Your task to perform on an android device: open wifi settings Image 0: 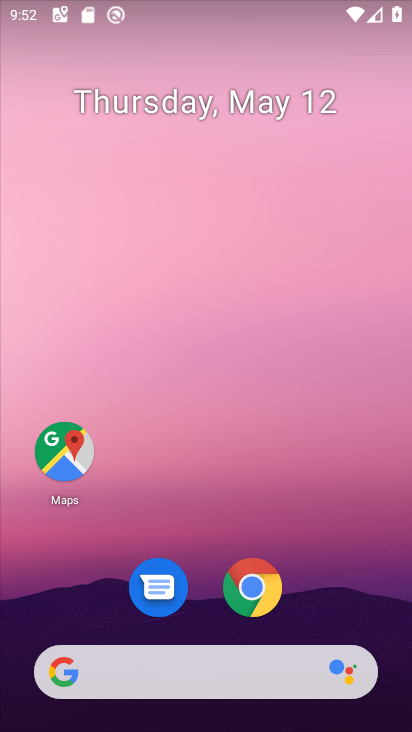
Step 0: drag from (366, 477) to (259, 28)
Your task to perform on an android device: open wifi settings Image 1: 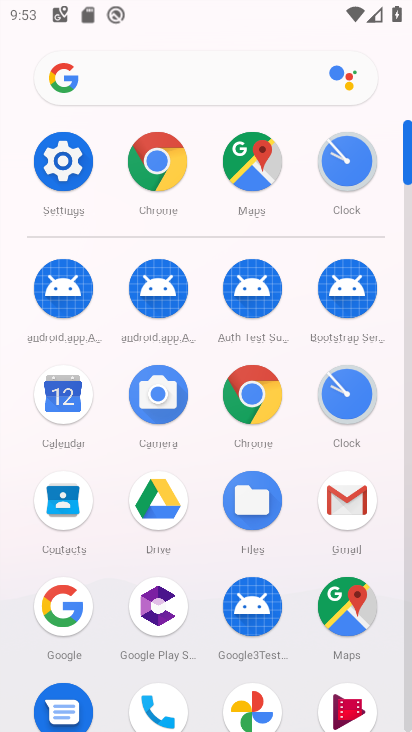
Step 1: click (81, 161)
Your task to perform on an android device: open wifi settings Image 2: 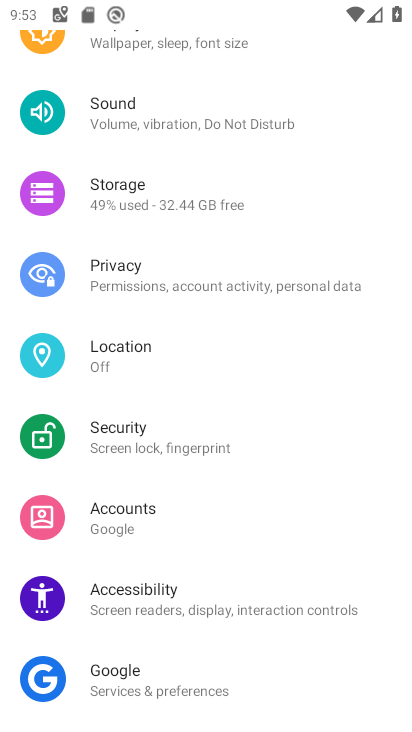
Step 2: drag from (285, 125) to (272, 466)
Your task to perform on an android device: open wifi settings Image 3: 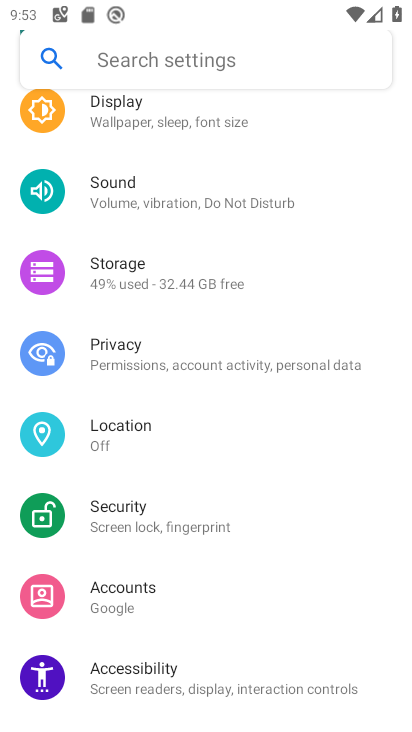
Step 3: drag from (250, 123) to (214, 407)
Your task to perform on an android device: open wifi settings Image 4: 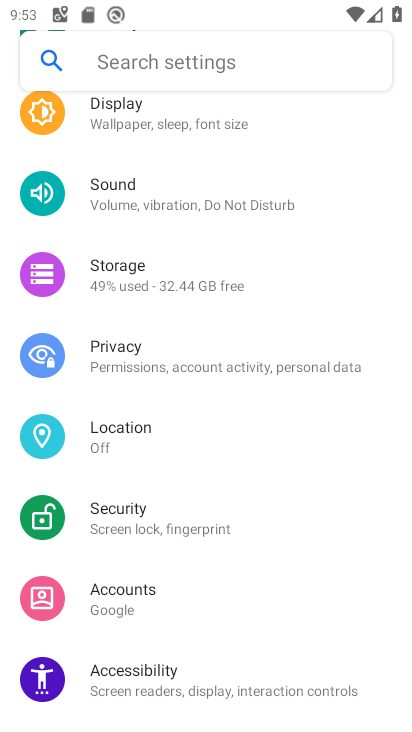
Step 4: drag from (208, 218) to (207, 431)
Your task to perform on an android device: open wifi settings Image 5: 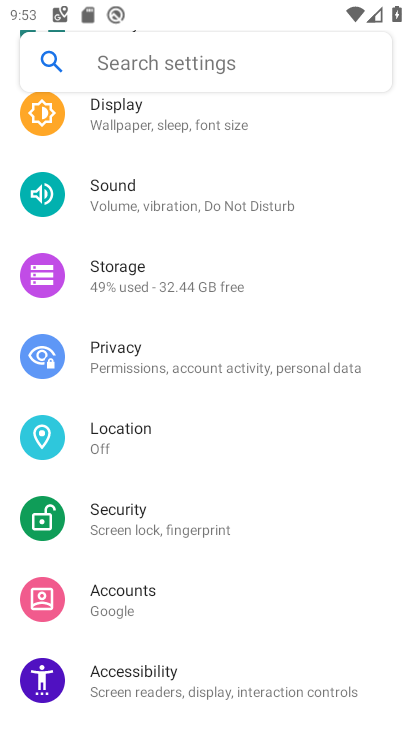
Step 5: drag from (219, 396) to (178, 686)
Your task to perform on an android device: open wifi settings Image 6: 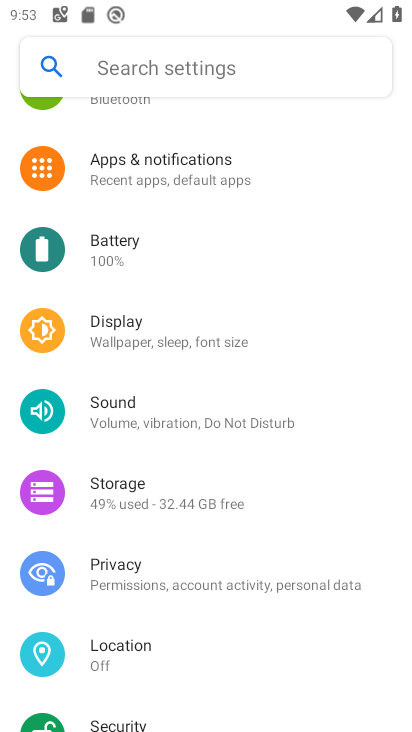
Step 6: drag from (248, 562) to (109, 258)
Your task to perform on an android device: open wifi settings Image 7: 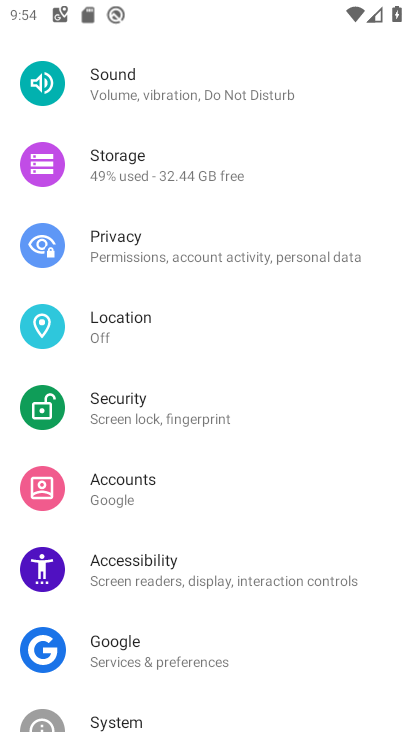
Step 7: drag from (332, 183) to (281, 657)
Your task to perform on an android device: open wifi settings Image 8: 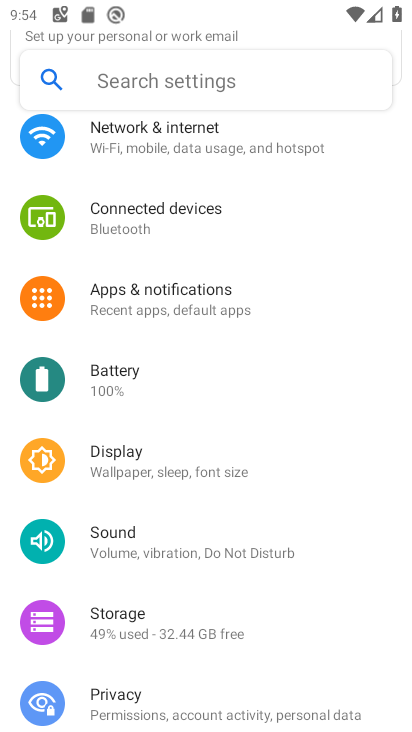
Step 8: drag from (190, 171) to (171, 598)
Your task to perform on an android device: open wifi settings Image 9: 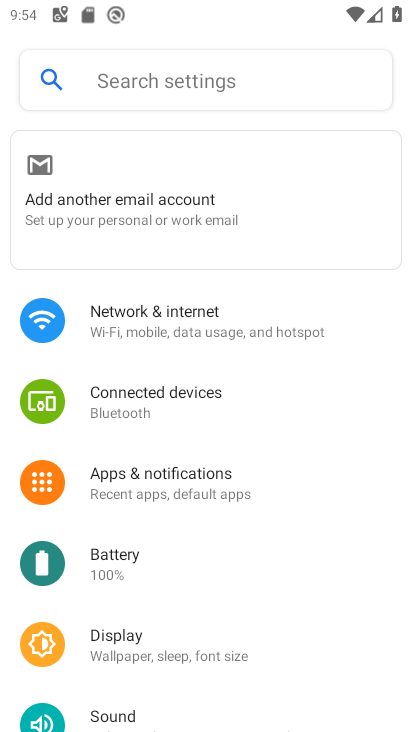
Step 9: click (176, 343)
Your task to perform on an android device: open wifi settings Image 10: 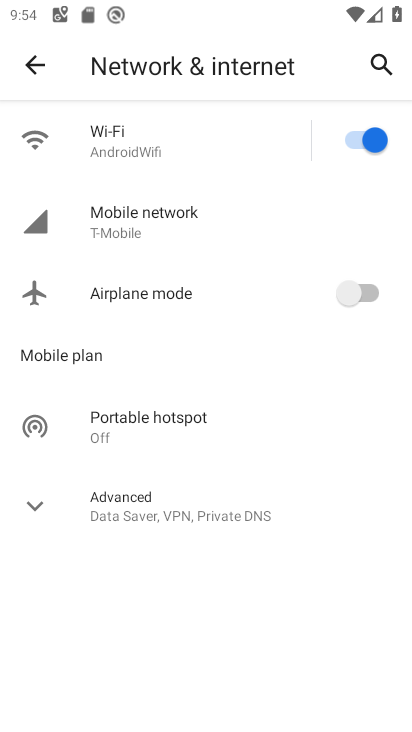
Step 10: click (195, 140)
Your task to perform on an android device: open wifi settings Image 11: 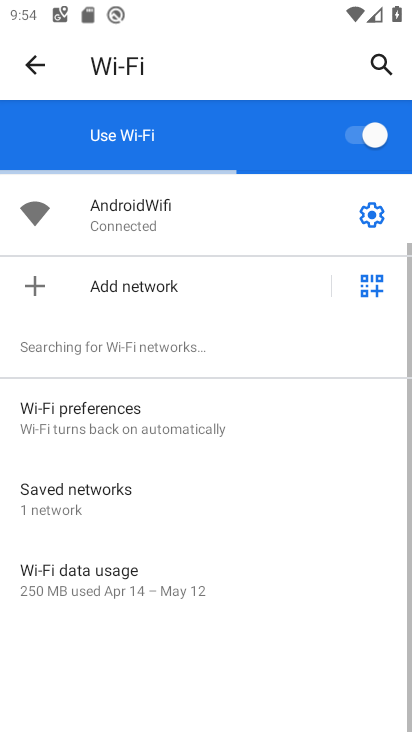
Step 11: task complete